Your task to perform on an android device: Open ESPN.com Image 0: 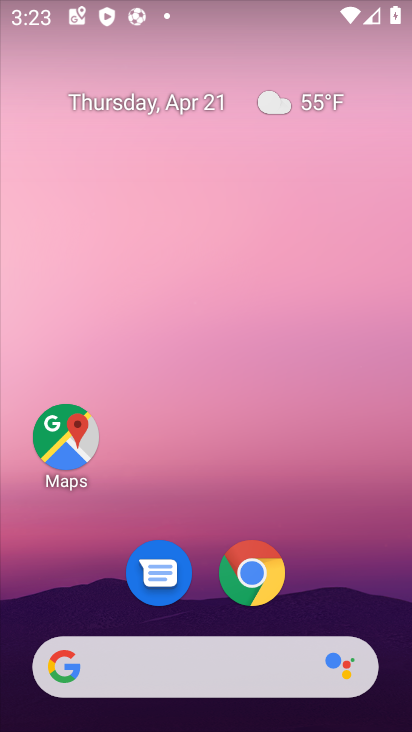
Step 0: click (253, 577)
Your task to perform on an android device: Open ESPN.com Image 1: 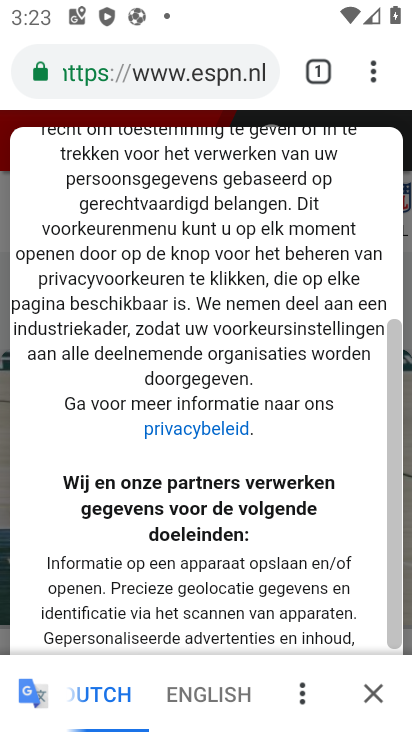
Step 1: task complete